Your task to perform on an android device: turn on data saver in the chrome app Image 0: 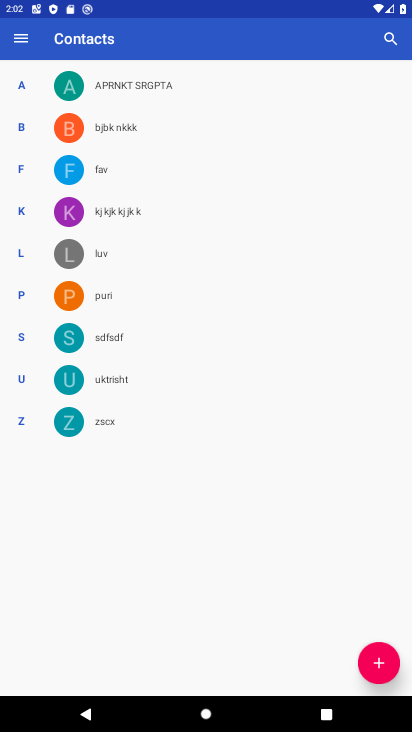
Step 0: press home button
Your task to perform on an android device: turn on data saver in the chrome app Image 1: 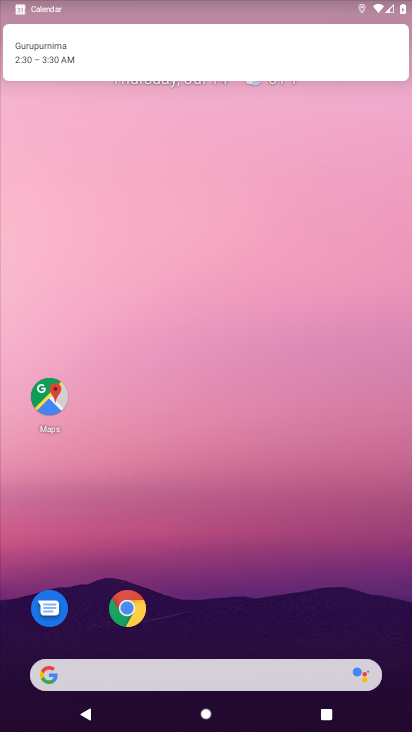
Step 1: click (129, 607)
Your task to perform on an android device: turn on data saver in the chrome app Image 2: 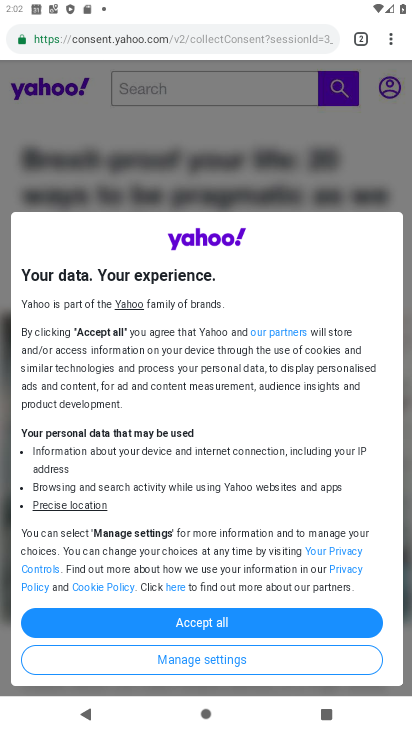
Step 2: click (392, 39)
Your task to perform on an android device: turn on data saver in the chrome app Image 3: 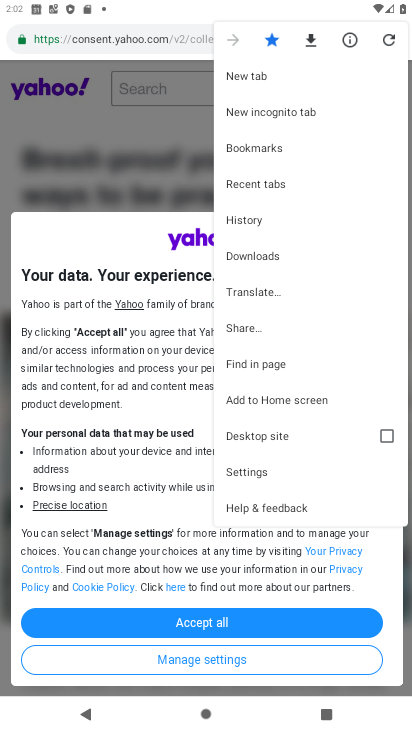
Step 3: click (251, 473)
Your task to perform on an android device: turn on data saver in the chrome app Image 4: 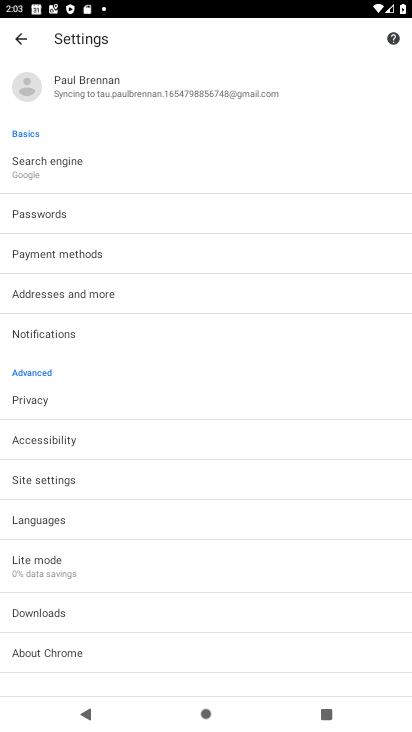
Step 4: click (81, 568)
Your task to perform on an android device: turn on data saver in the chrome app Image 5: 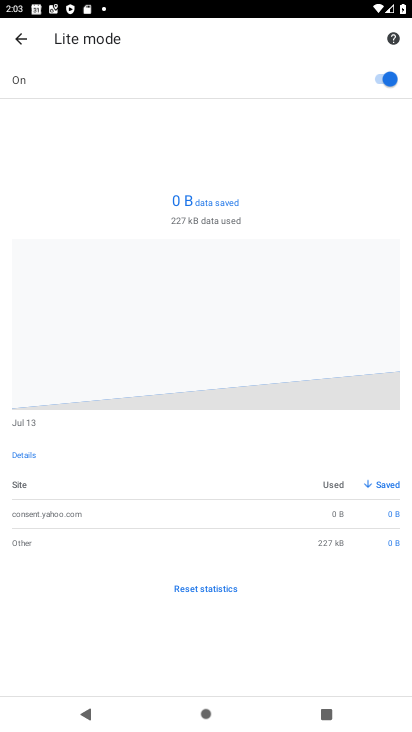
Step 5: task complete